Your task to perform on an android device: Open Google Chrome and click the shortcut for Amazon.com Image 0: 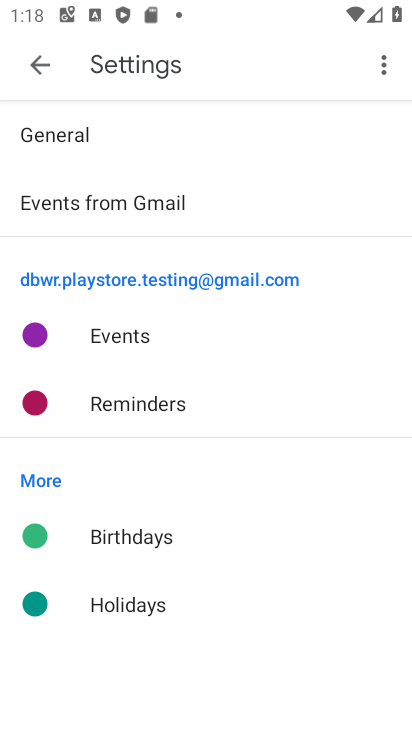
Step 0: press home button
Your task to perform on an android device: Open Google Chrome and click the shortcut for Amazon.com Image 1: 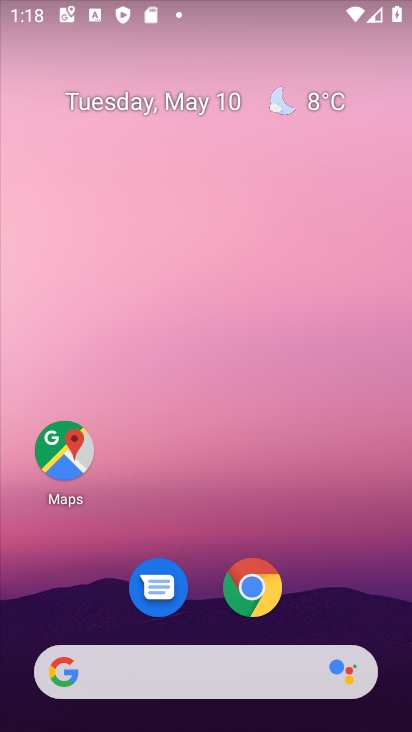
Step 1: drag from (301, 262) to (296, 204)
Your task to perform on an android device: Open Google Chrome and click the shortcut for Amazon.com Image 2: 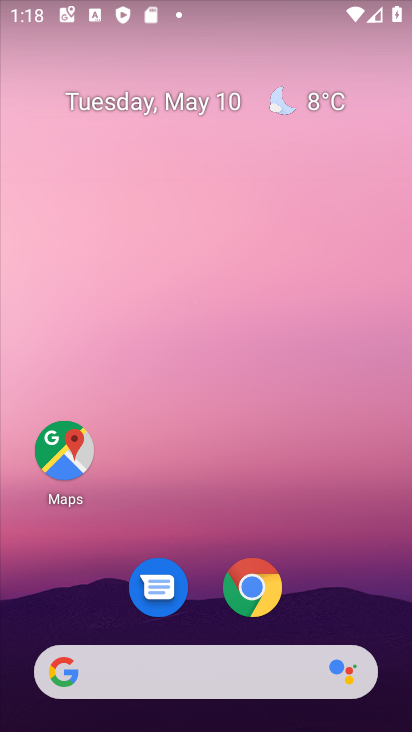
Step 2: click (253, 587)
Your task to perform on an android device: Open Google Chrome and click the shortcut for Amazon.com Image 3: 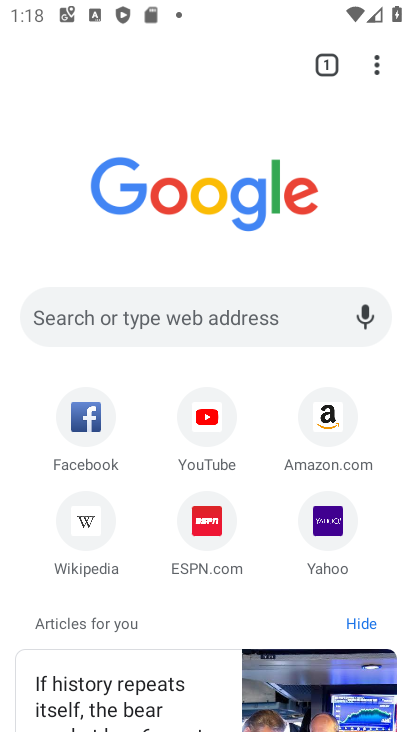
Step 3: click (247, 326)
Your task to perform on an android device: Open Google Chrome and click the shortcut for Amazon.com Image 4: 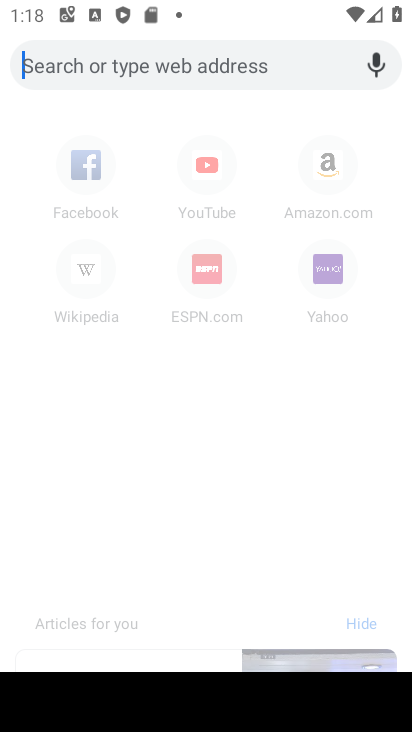
Step 4: click (319, 180)
Your task to perform on an android device: Open Google Chrome and click the shortcut for Amazon.com Image 5: 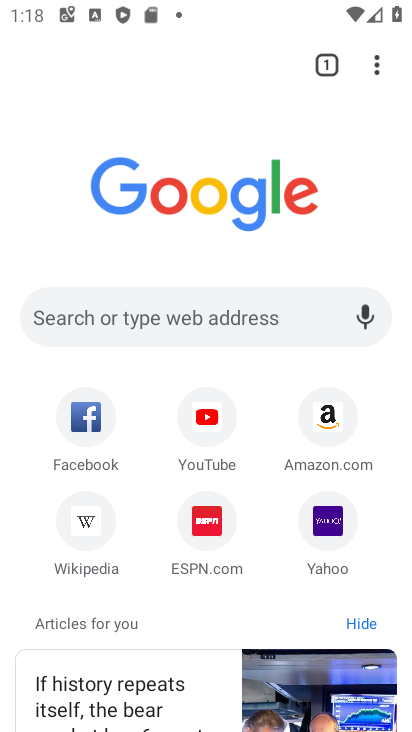
Step 5: click (325, 423)
Your task to perform on an android device: Open Google Chrome and click the shortcut for Amazon.com Image 6: 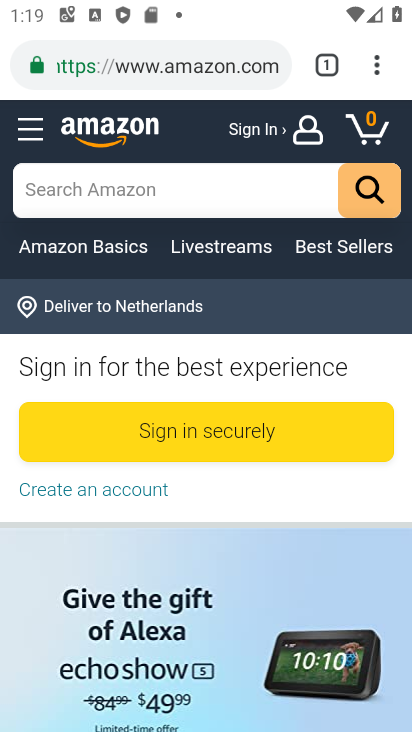
Step 6: task complete